Your task to perform on an android device: open app "Yahoo Mail" (install if not already installed), go to login, and select forgot password Image 0: 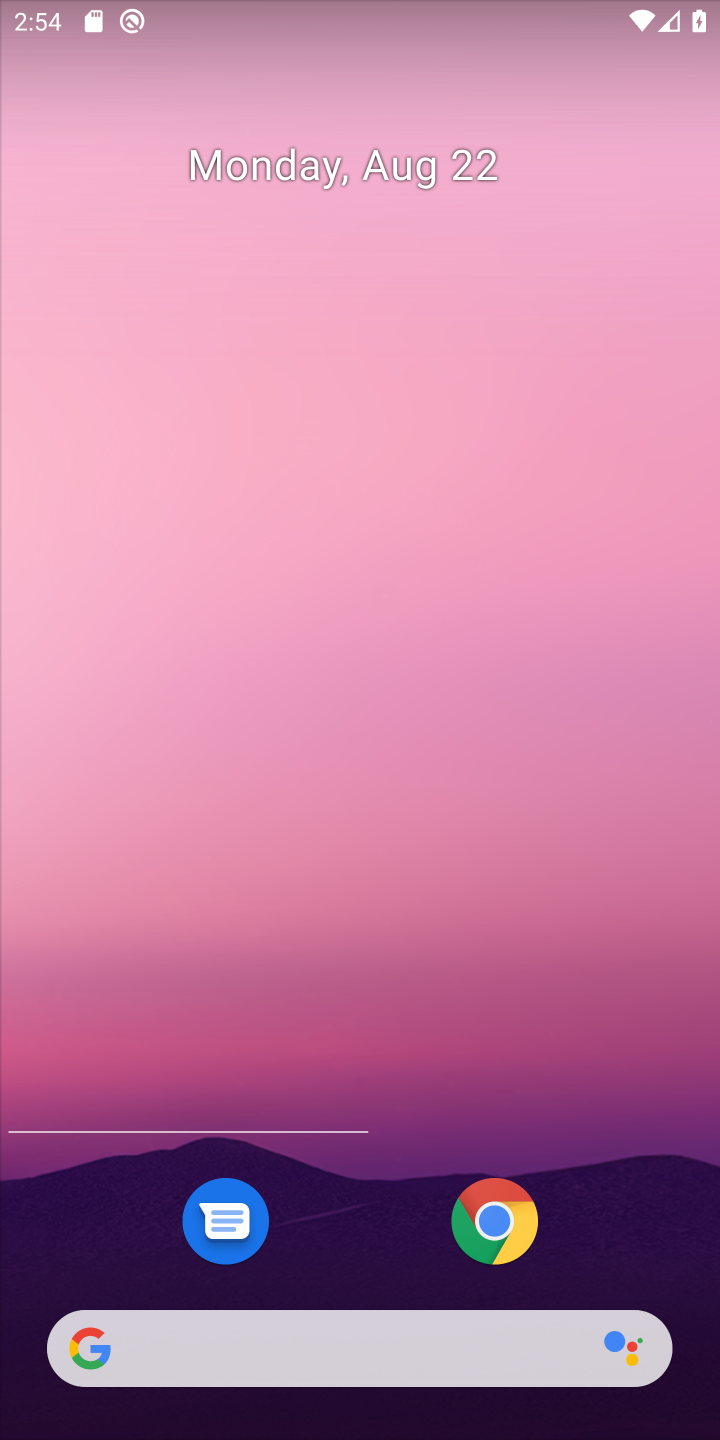
Step 0: press home button
Your task to perform on an android device: open app "Yahoo Mail" (install if not already installed), go to login, and select forgot password Image 1: 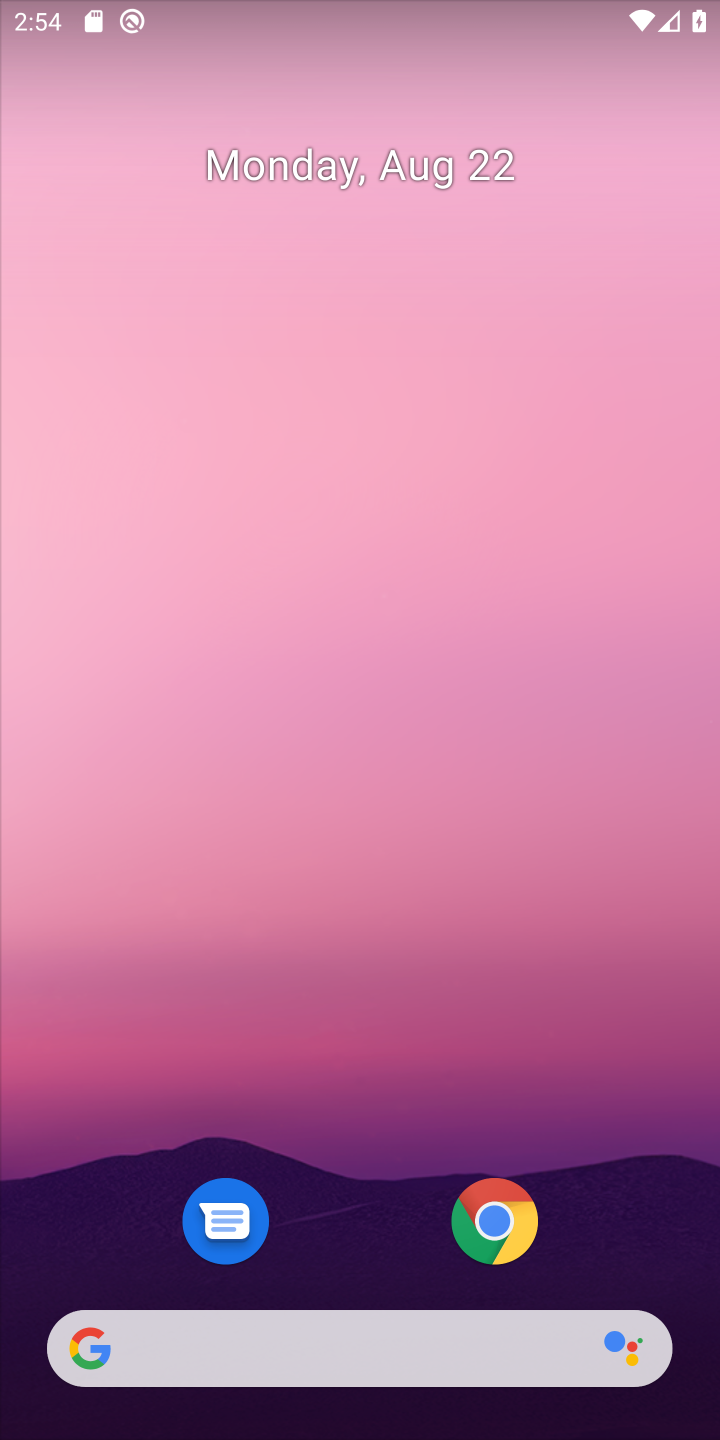
Step 1: drag from (377, 1234) to (417, 161)
Your task to perform on an android device: open app "Yahoo Mail" (install if not already installed), go to login, and select forgot password Image 2: 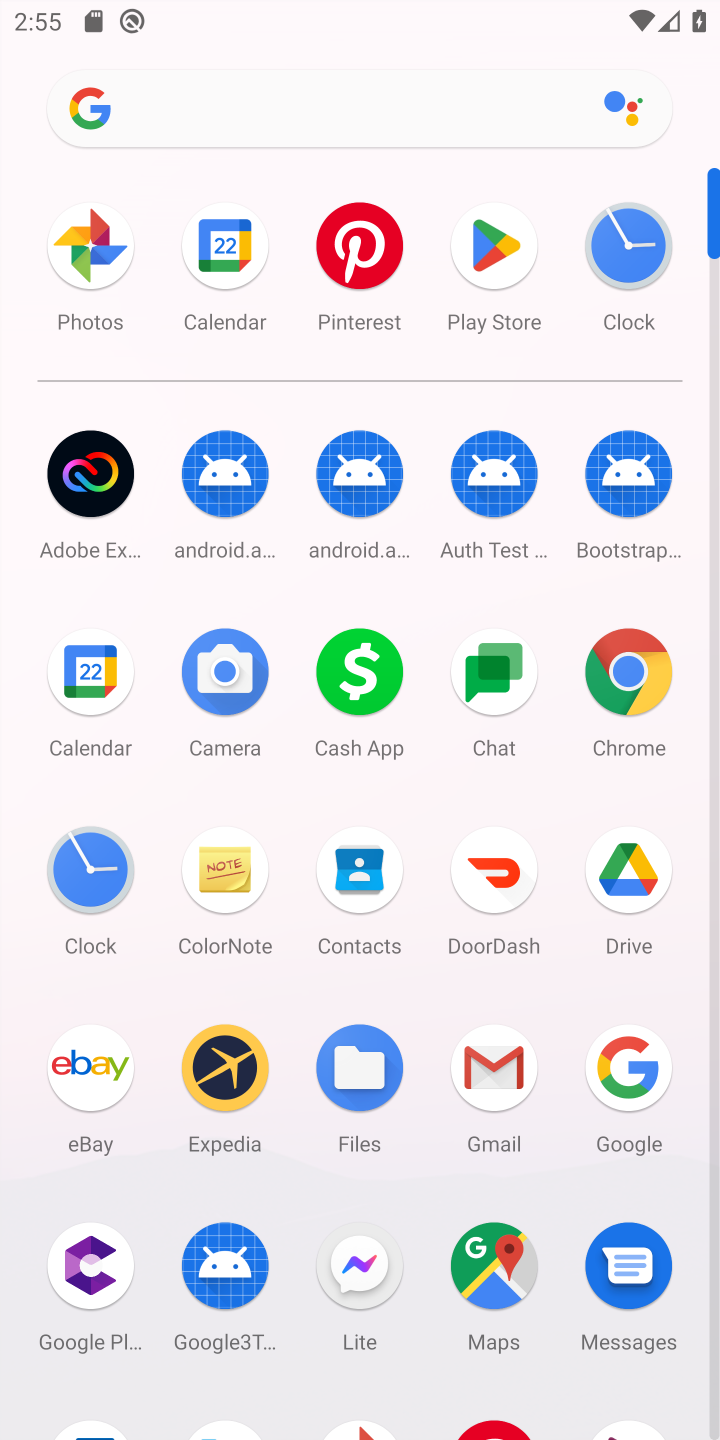
Step 2: click (493, 239)
Your task to perform on an android device: open app "Yahoo Mail" (install if not already installed), go to login, and select forgot password Image 3: 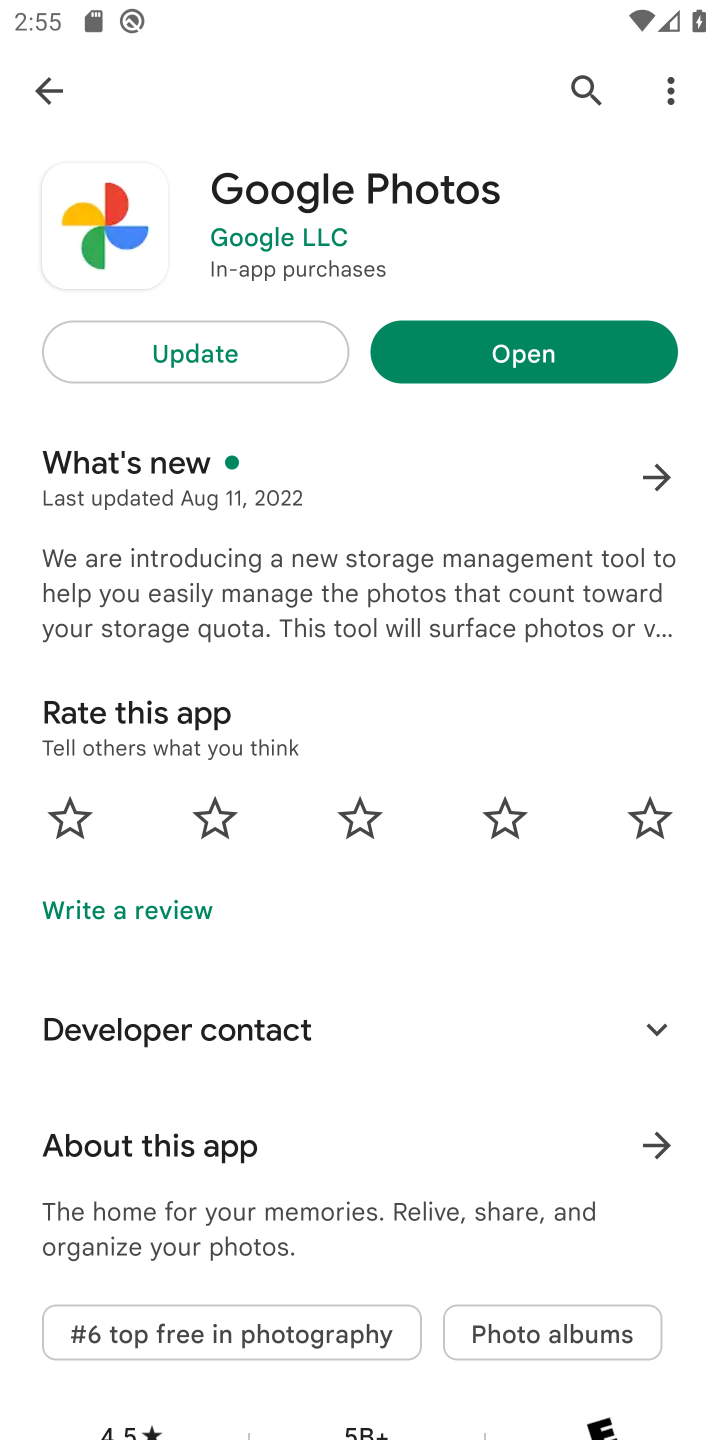
Step 3: click (594, 84)
Your task to perform on an android device: open app "Yahoo Mail" (install if not already installed), go to login, and select forgot password Image 4: 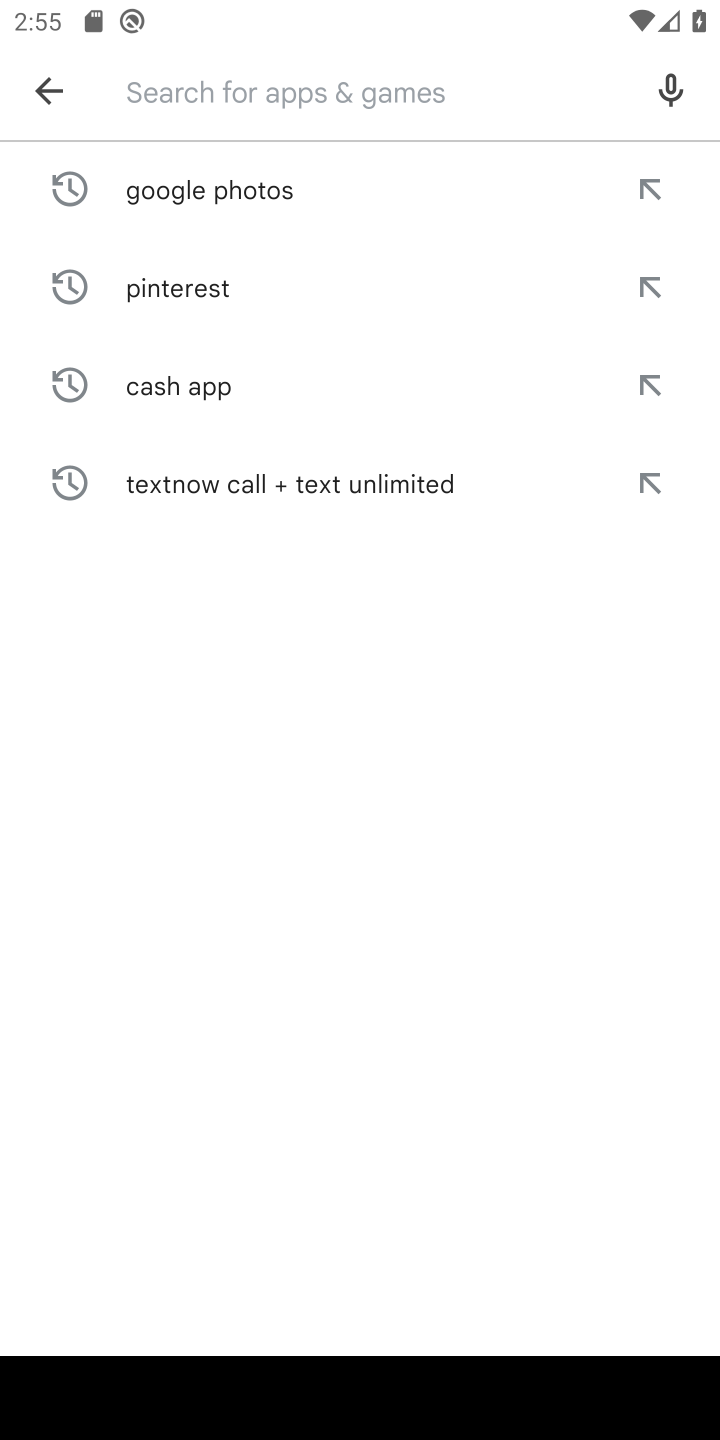
Step 4: type "yahoo mail"
Your task to perform on an android device: open app "Yahoo Mail" (install if not already installed), go to login, and select forgot password Image 5: 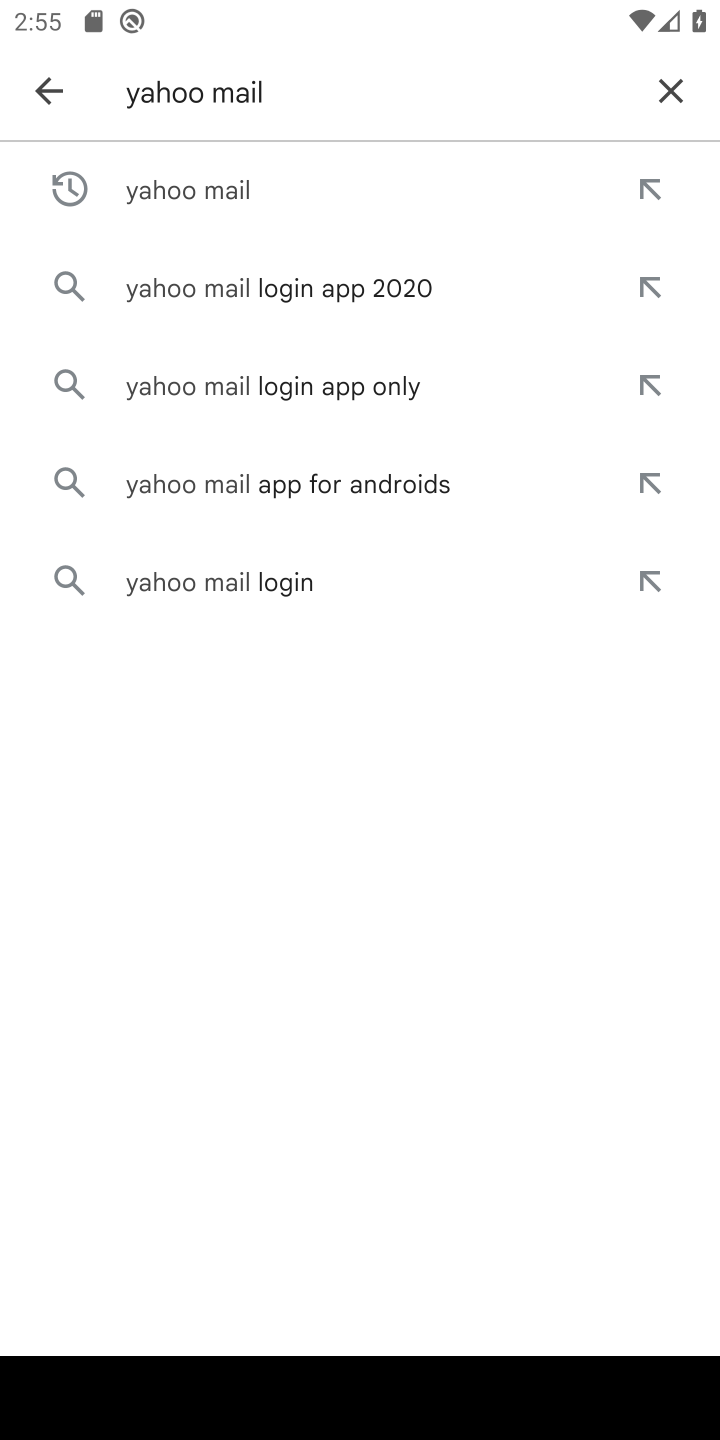
Step 5: click (203, 187)
Your task to perform on an android device: open app "Yahoo Mail" (install if not already installed), go to login, and select forgot password Image 6: 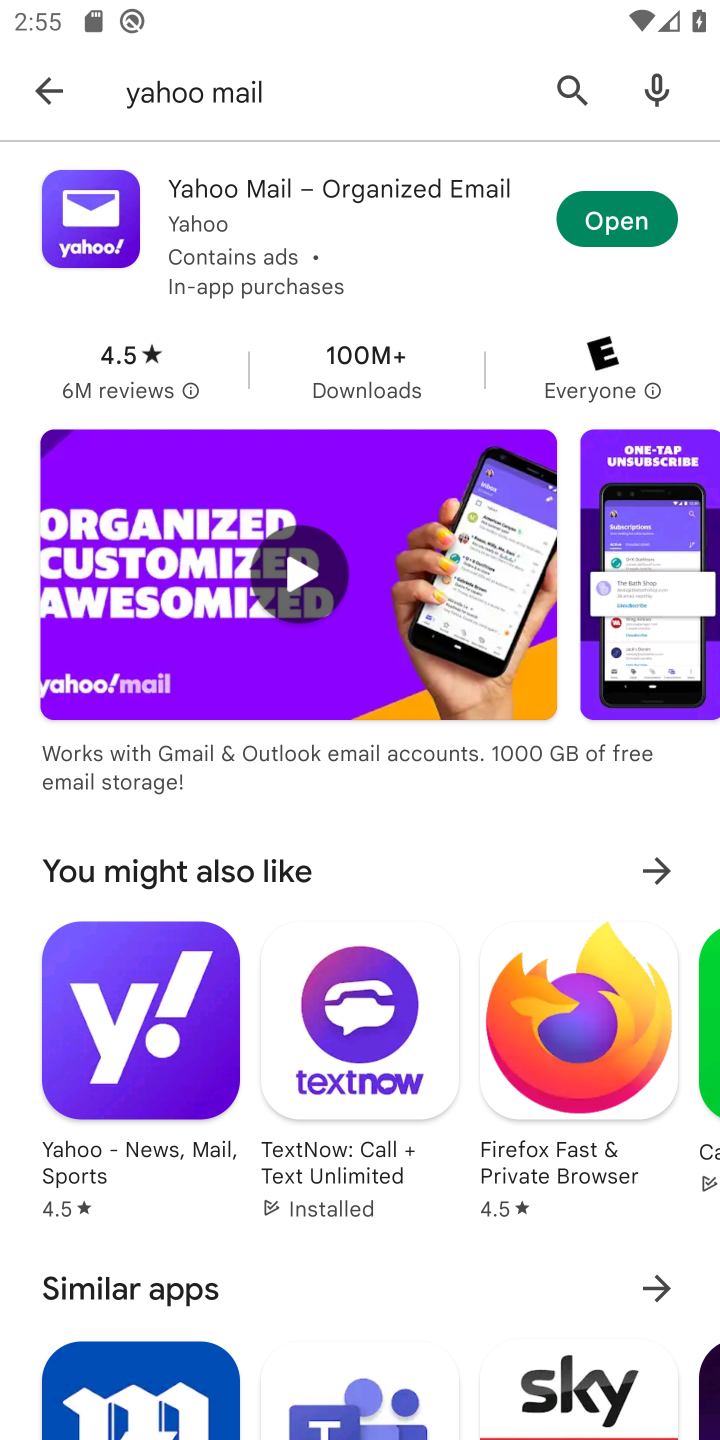
Step 6: click (612, 207)
Your task to perform on an android device: open app "Yahoo Mail" (install if not already installed), go to login, and select forgot password Image 7: 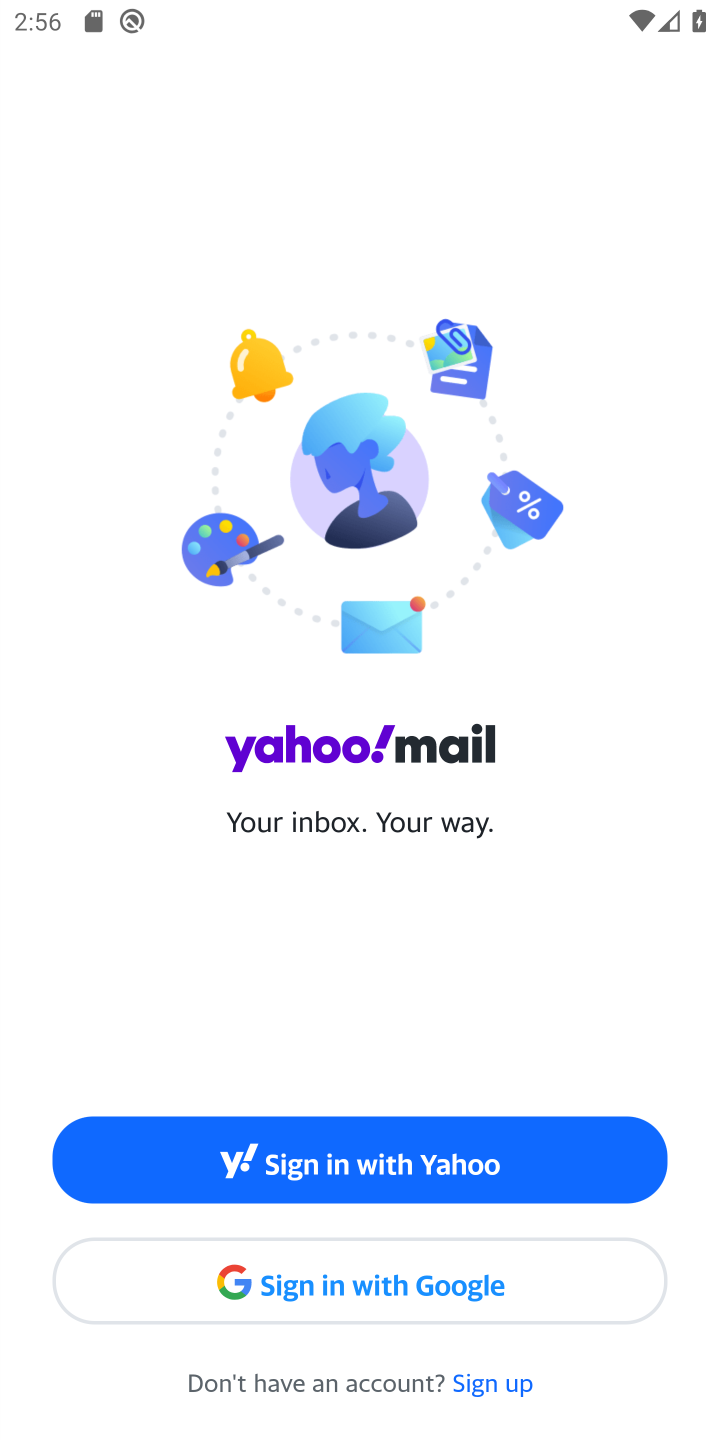
Step 7: click (383, 1160)
Your task to perform on an android device: open app "Yahoo Mail" (install if not already installed), go to login, and select forgot password Image 8: 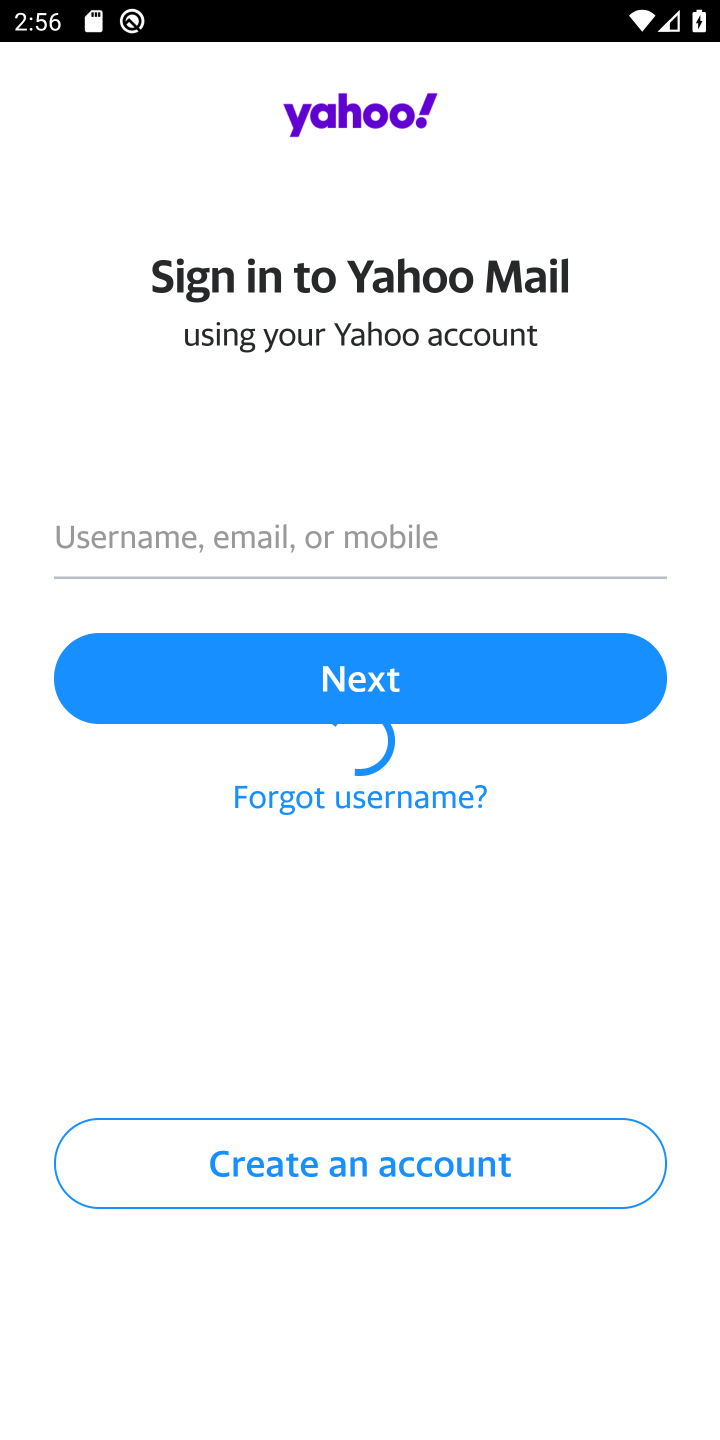
Step 8: click (338, 796)
Your task to perform on an android device: open app "Yahoo Mail" (install if not already installed), go to login, and select forgot password Image 9: 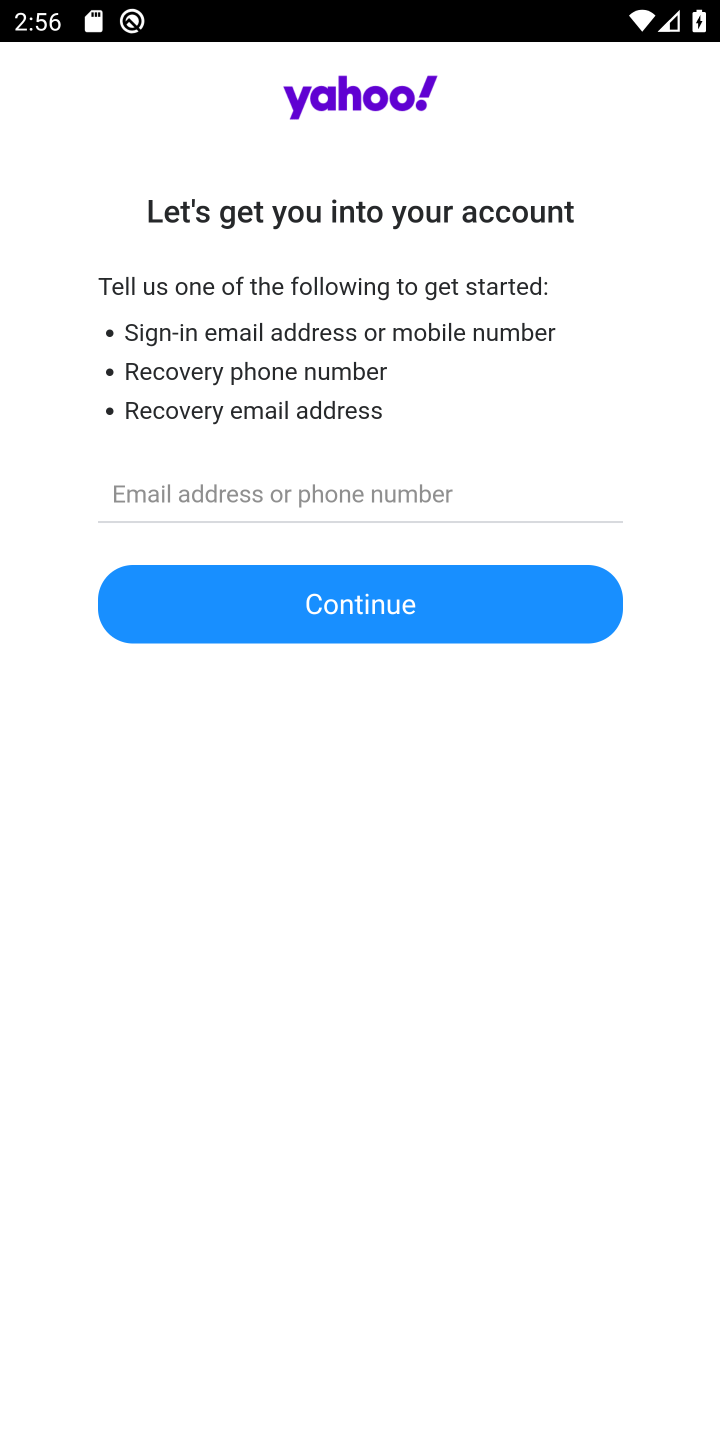
Step 9: task complete